Your task to perform on an android device: set the stopwatch Image 0: 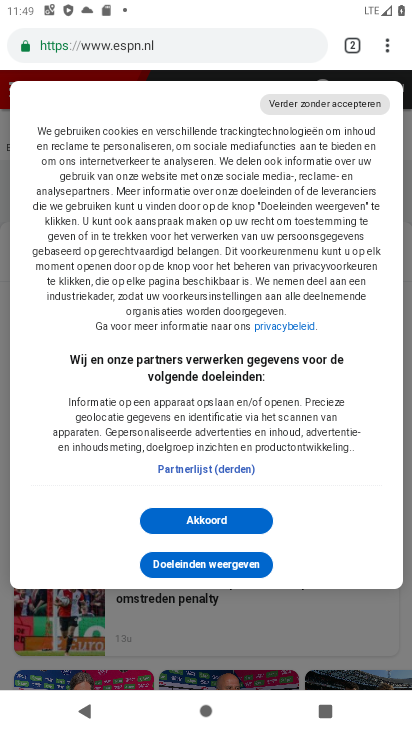
Step 0: press home button
Your task to perform on an android device: set the stopwatch Image 1: 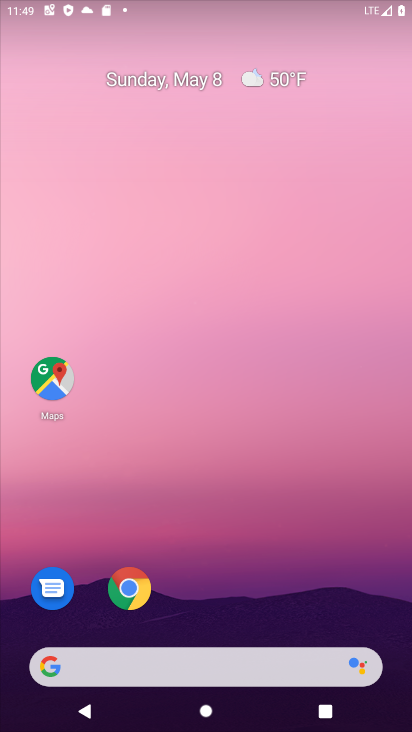
Step 1: drag from (238, 546) to (185, 61)
Your task to perform on an android device: set the stopwatch Image 2: 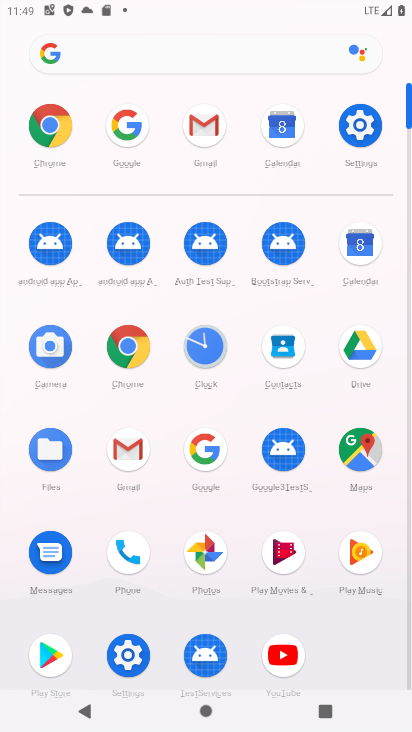
Step 2: click (224, 344)
Your task to perform on an android device: set the stopwatch Image 3: 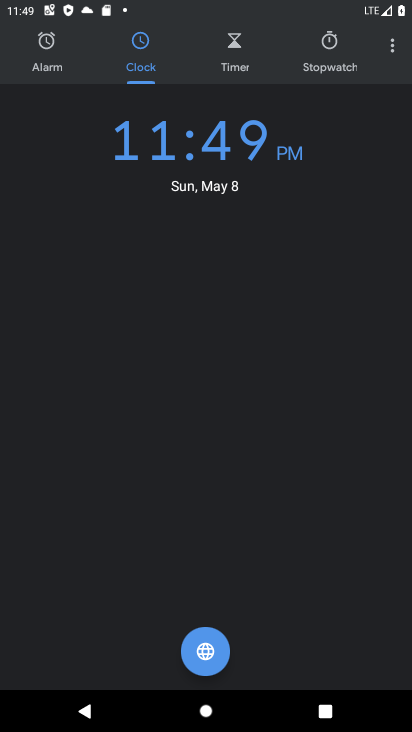
Step 3: click (325, 47)
Your task to perform on an android device: set the stopwatch Image 4: 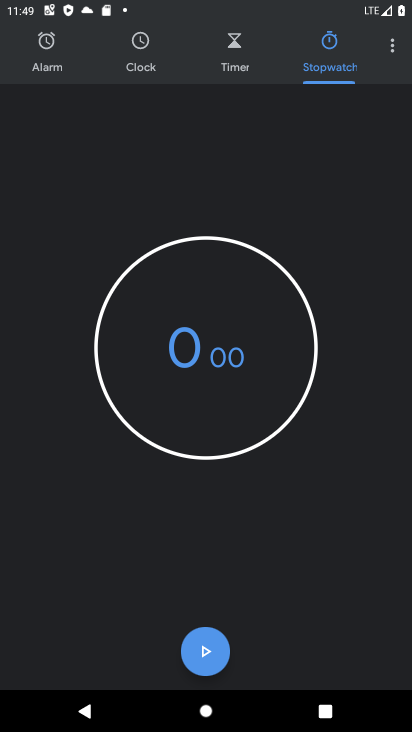
Step 4: click (214, 659)
Your task to perform on an android device: set the stopwatch Image 5: 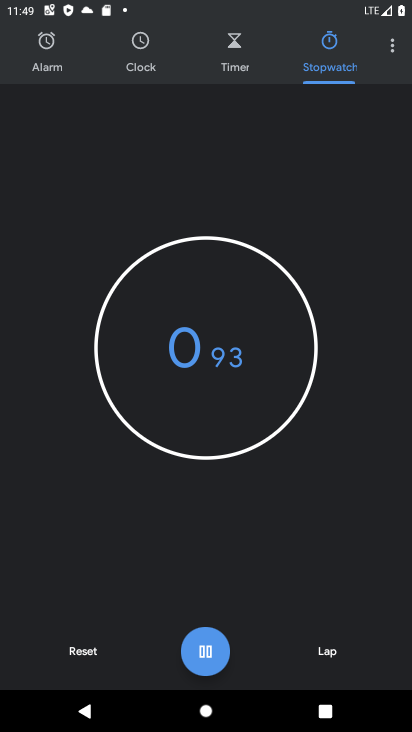
Step 5: task complete